Your task to perform on an android device: Open Google Chrome and click the shortcut for Amazon.com Image 0: 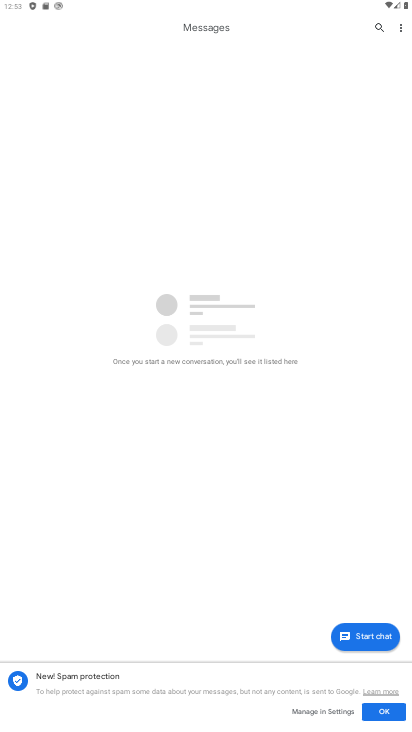
Step 0: press home button
Your task to perform on an android device: Open Google Chrome and click the shortcut for Amazon.com Image 1: 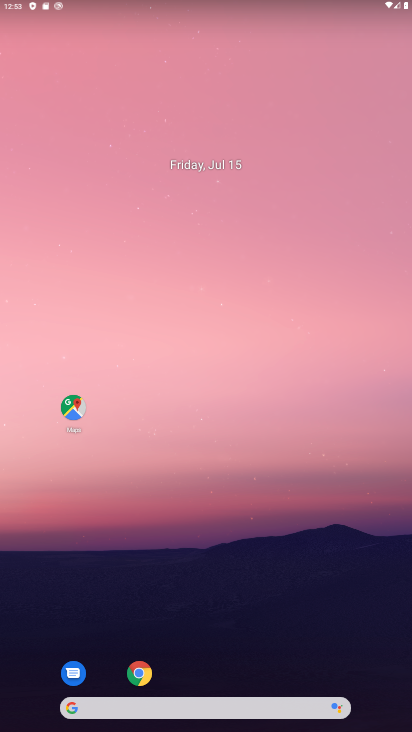
Step 1: drag from (245, 597) to (230, 98)
Your task to perform on an android device: Open Google Chrome and click the shortcut for Amazon.com Image 2: 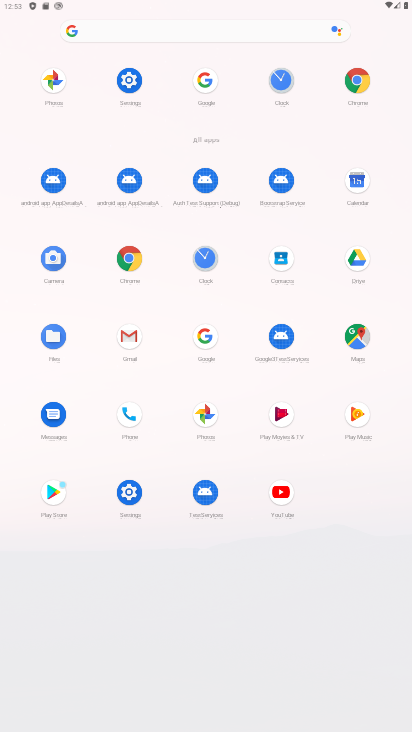
Step 2: click (129, 262)
Your task to perform on an android device: Open Google Chrome and click the shortcut for Amazon.com Image 3: 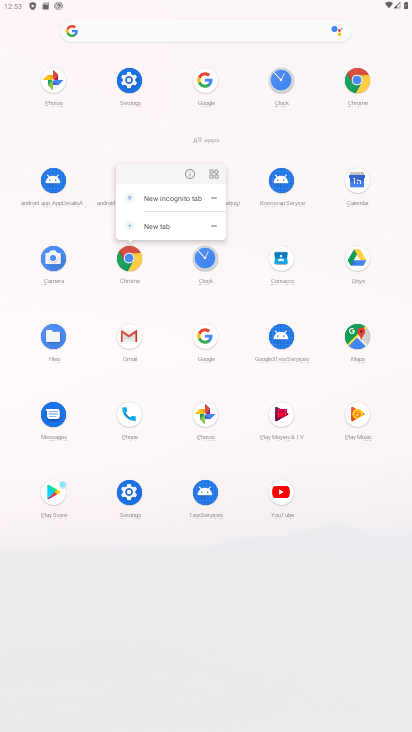
Step 3: click (127, 267)
Your task to perform on an android device: Open Google Chrome and click the shortcut for Amazon.com Image 4: 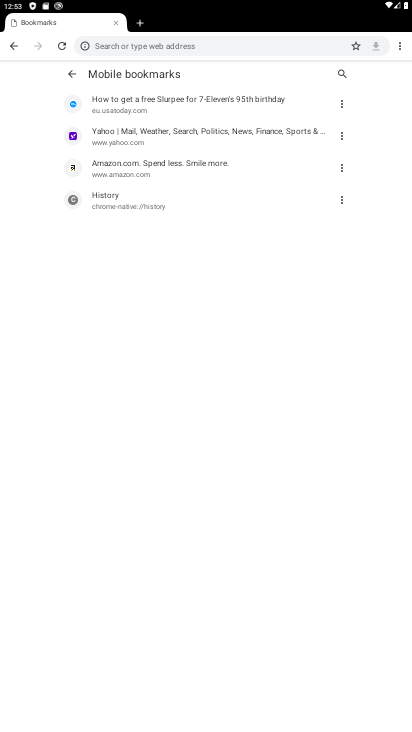
Step 4: click (73, 76)
Your task to perform on an android device: Open Google Chrome and click the shortcut for Amazon.com Image 5: 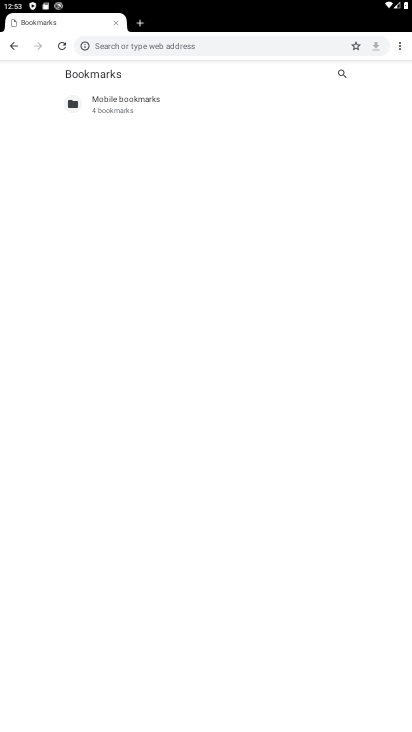
Step 5: click (16, 41)
Your task to perform on an android device: Open Google Chrome and click the shortcut for Amazon.com Image 6: 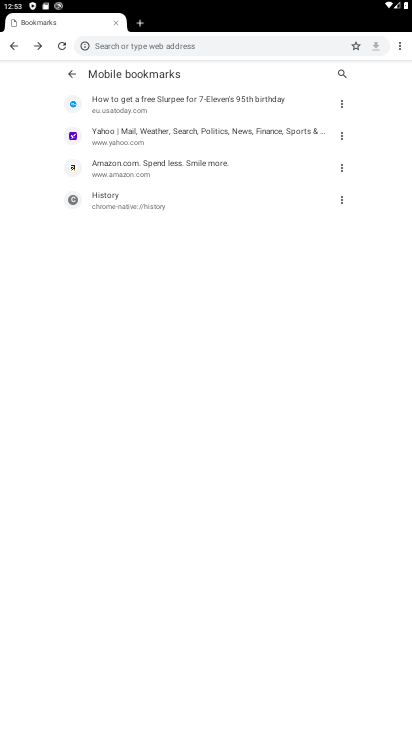
Step 6: click (11, 53)
Your task to perform on an android device: Open Google Chrome and click the shortcut for Amazon.com Image 7: 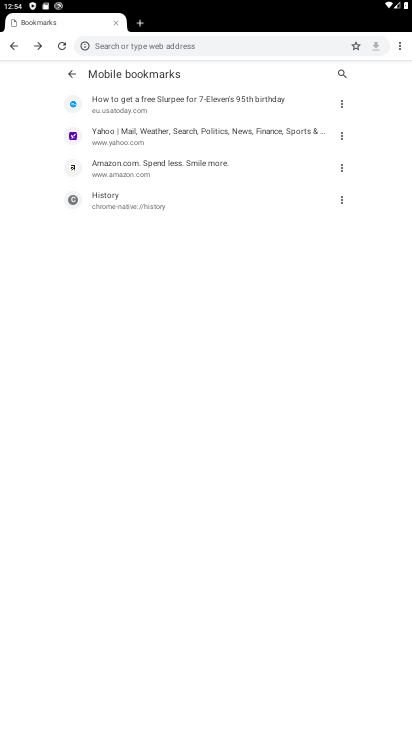
Step 7: click (10, 53)
Your task to perform on an android device: Open Google Chrome and click the shortcut for Amazon.com Image 8: 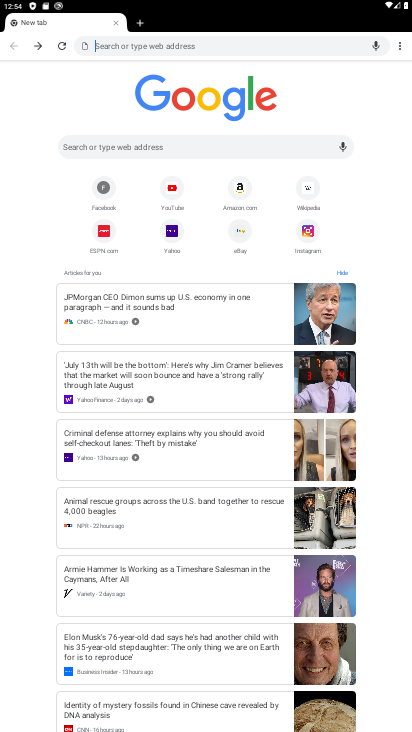
Step 8: click (238, 189)
Your task to perform on an android device: Open Google Chrome and click the shortcut for Amazon.com Image 9: 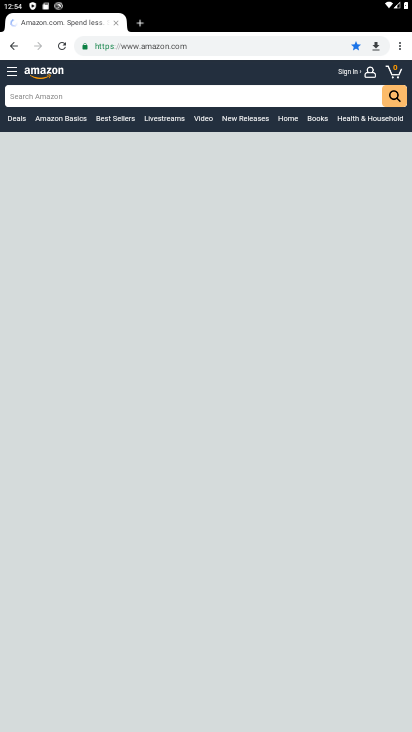
Step 9: drag from (403, 51) to (337, 260)
Your task to perform on an android device: Open Google Chrome and click the shortcut for Amazon.com Image 10: 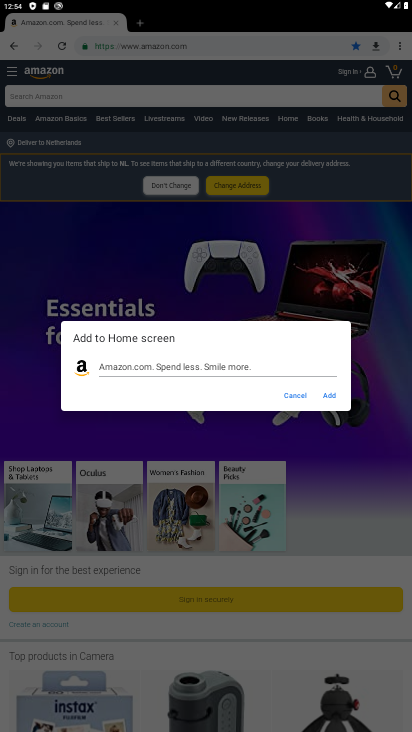
Step 10: click (329, 390)
Your task to perform on an android device: Open Google Chrome and click the shortcut for Amazon.com Image 11: 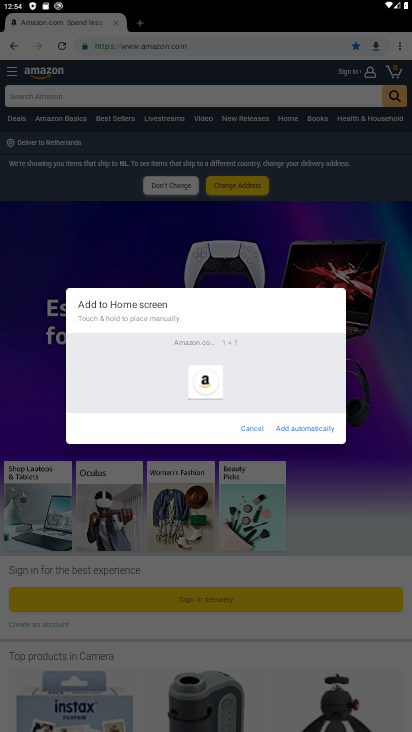
Step 11: click (311, 435)
Your task to perform on an android device: Open Google Chrome and click the shortcut for Amazon.com Image 12: 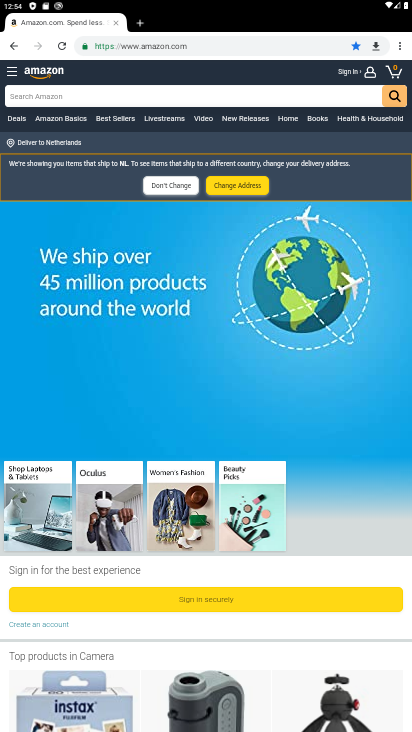
Step 12: task complete